Your task to perform on an android device: toggle data saver in the chrome app Image 0: 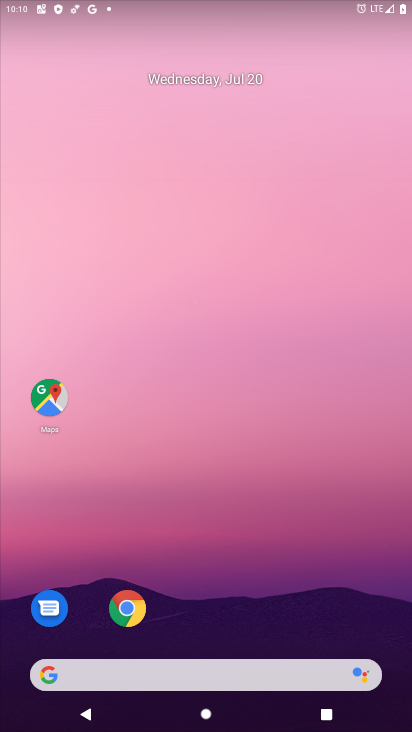
Step 0: click (119, 604)
Your task to perform on an android device: toggle data saver in the chrome app Image 1: 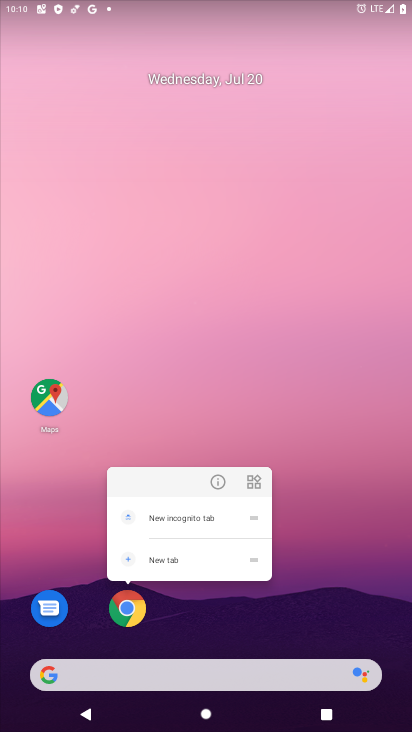
Step 1: click (128, 602)
Your task to perform on an android device: toggle data saver in the chrome app Image 2: 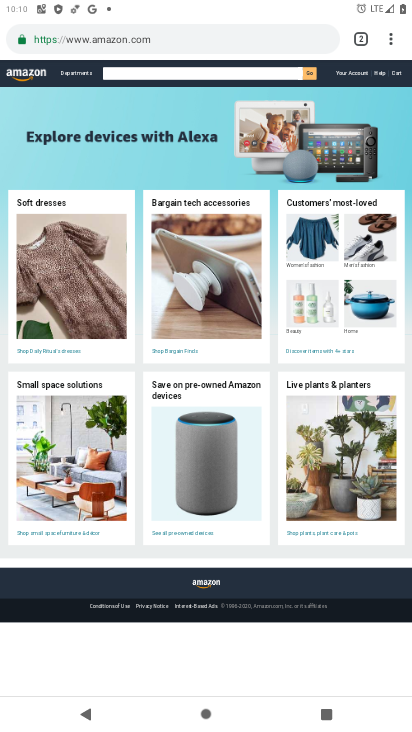
Step 2: click (388, 36)
Your task to perform on an android device: toggle data saver in the chrome app Image 3: 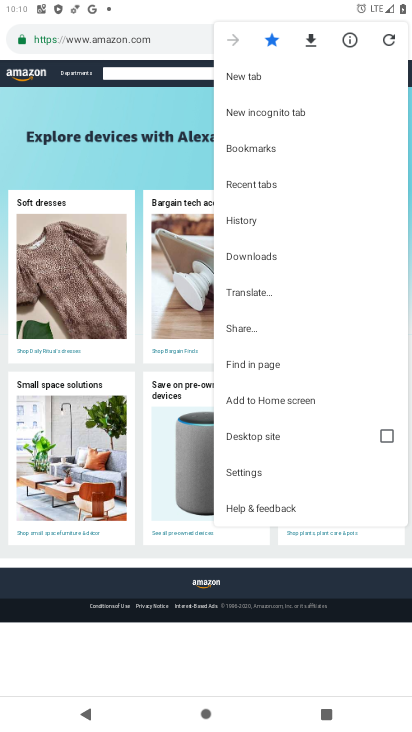
Step 3: click (267, 468)
Your task to perform on an android device: toggle data saver in the chrome app Image 4: 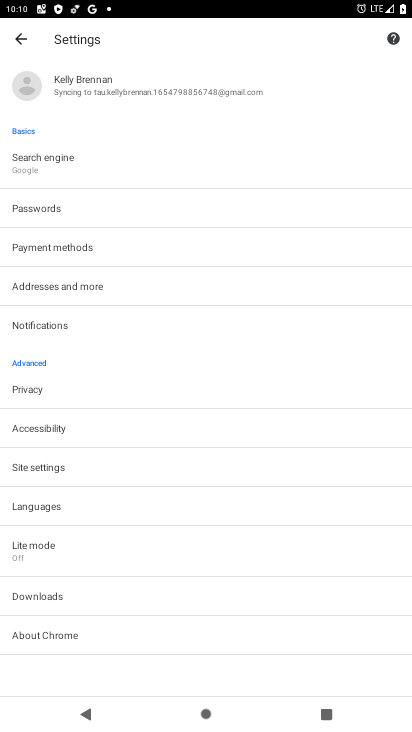
Step 4: click (56, 548)
Your task to perform on an android device: toggle data saver in the chrome app Image 5: 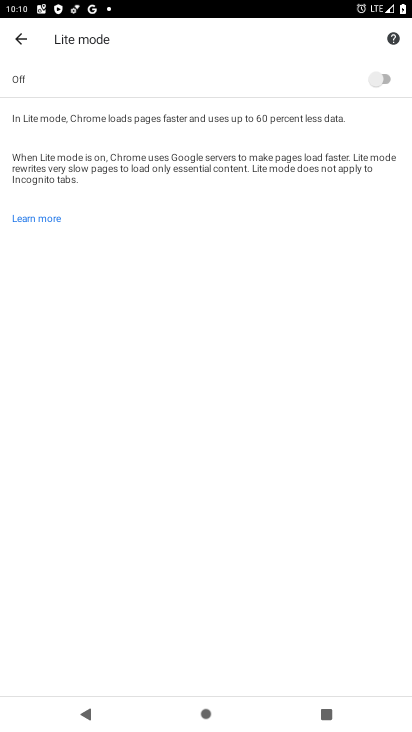
Step 5: click (378, 71)
Your task to perform on an android device: toggle data saver in the chrome app Image 6: 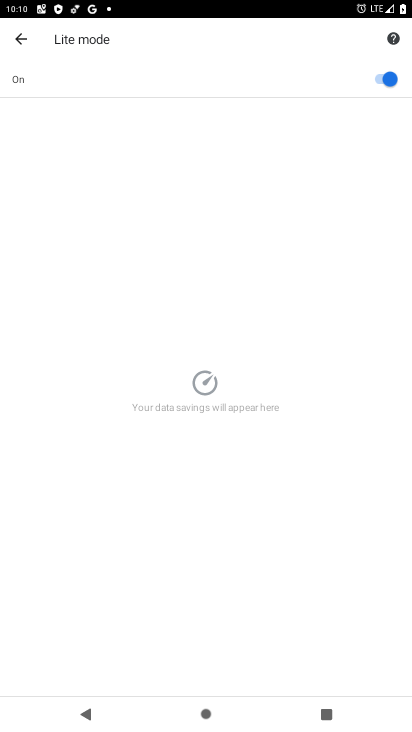
Step 6: task complete